Your task to perform on an android device: change text size in settings app Image 0: 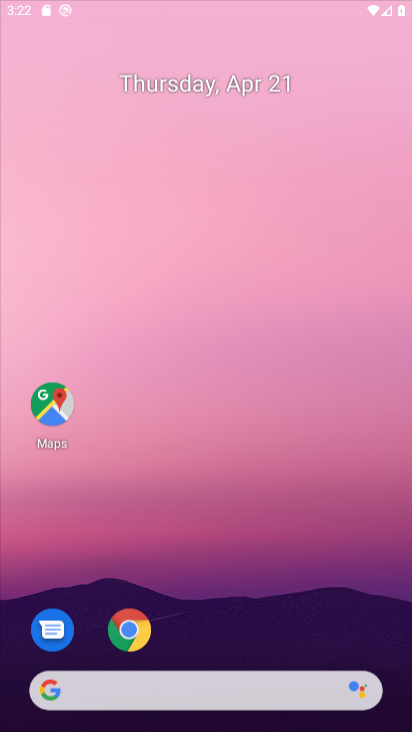
Step 0: click (405, 329)
Your task to perform on an android device: change text size in settings app Image 1: 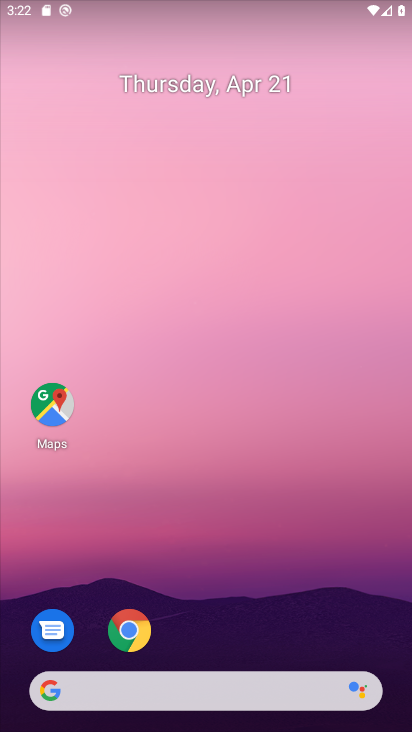
Step 1: drag from (219, 620) to (346, 182)
Your task to perform on an android device: change text size in settings app Image 2: 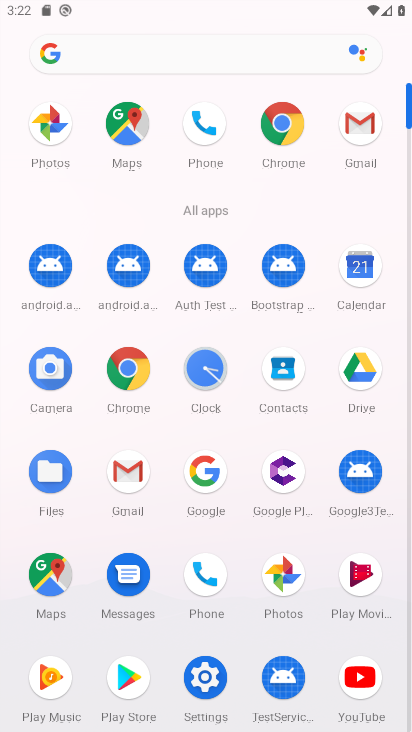
Step 2: click (187, 663)
Your task to perform on an android device: change text size in settings app Image 3: 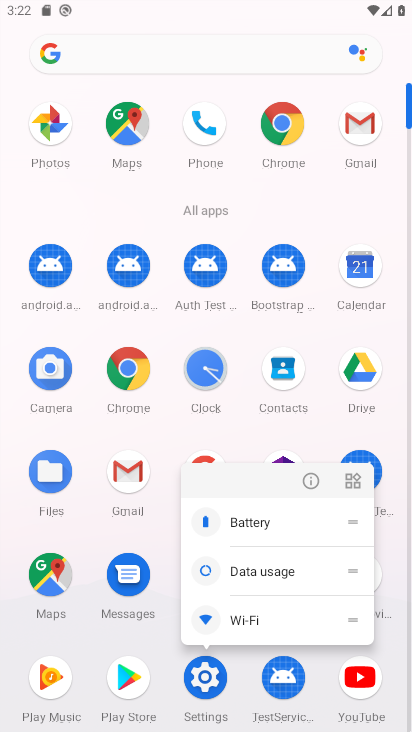
Step 3: click (317, 483)
Your task to perform on an android device: change text size in settings app Image 4: 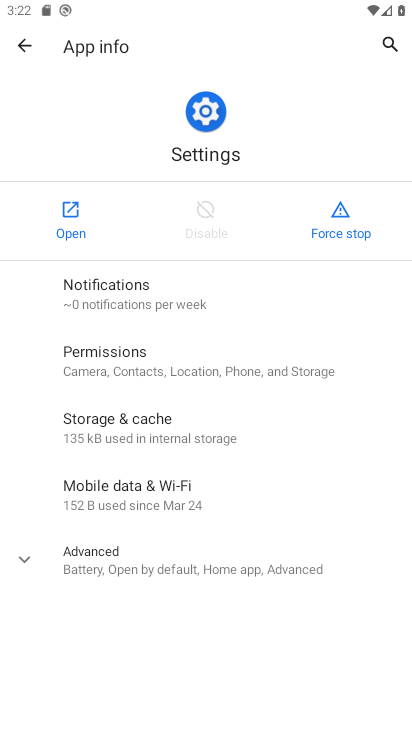
Step 4: click (52, 193)
Your task to perform on an android device: change text size in settings app Image 5: 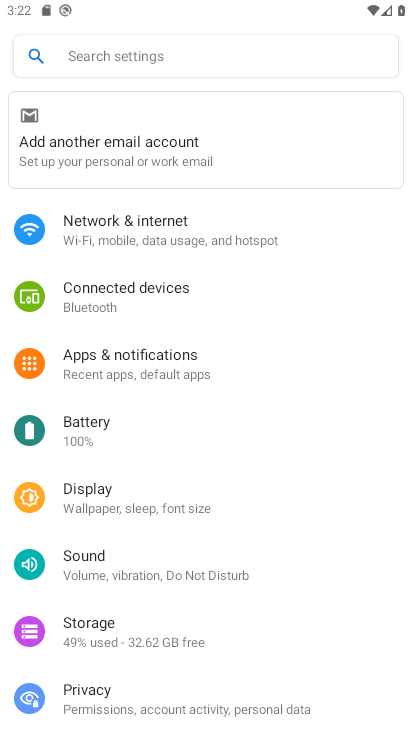
Step 5: drag from (144, 666) to (279, 99)
Your task to perform on an android device: change text size in settings app Image 6: 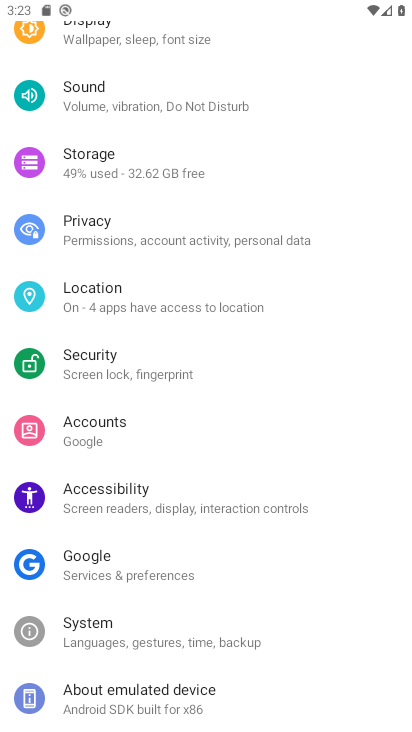
Step 6: click (126, 35)
Your task to perform on an android device: change text size in settings app Image 7: 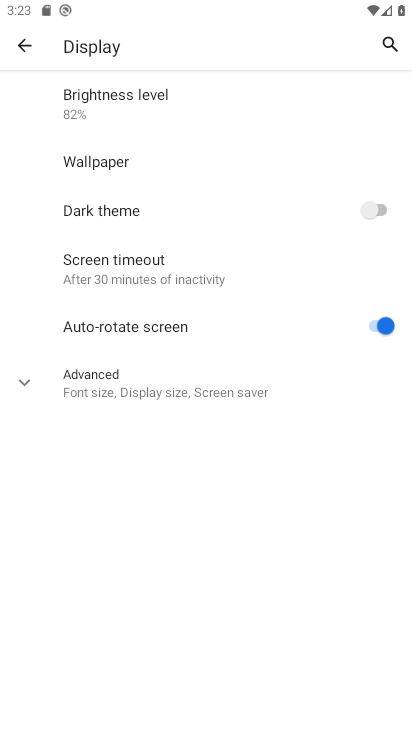
Step 7: click (127, 367)
Your task to perform on an android device: change text size in settings app Image 8: 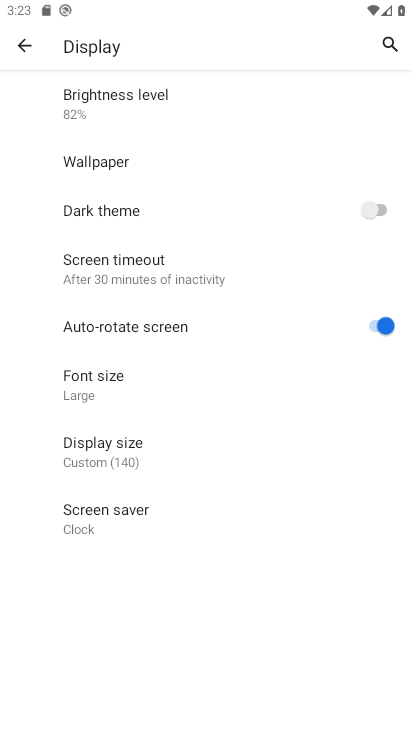
Step 8: click (120, 381)
Your task to perform on an android device: change text size in settings app Image 9: 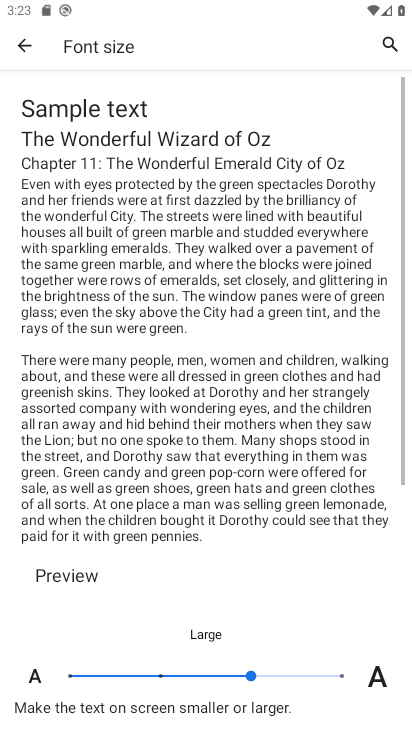
Step 9: drag from (257, 581) to (383, 60)
Your task to perform on an android device: change text size in settings app Image 10: 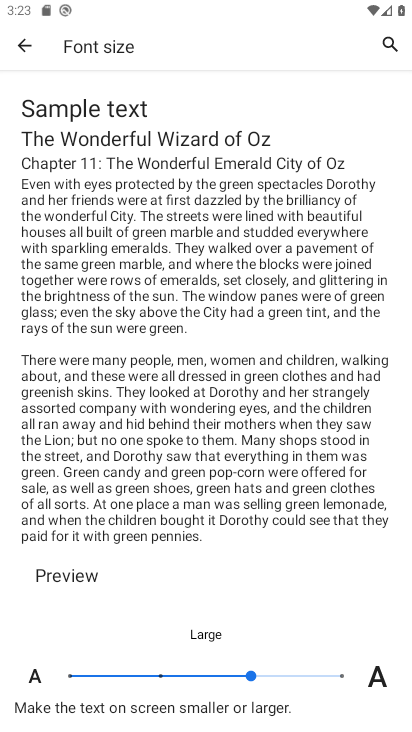
Step 10: drag from (290, 476) to (343, 155)
Your task to perform on an android device: change text size in settings app Image 11: 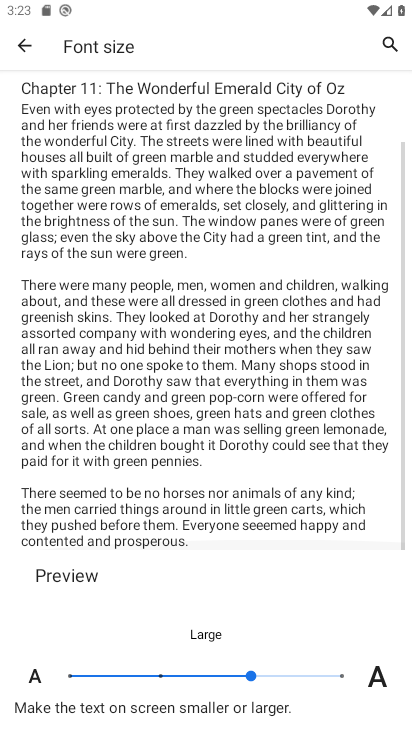
Step 11: drag from (256, 614) to (308, 320)
Your task to perform on an android device: change text size in settings app Image 12: 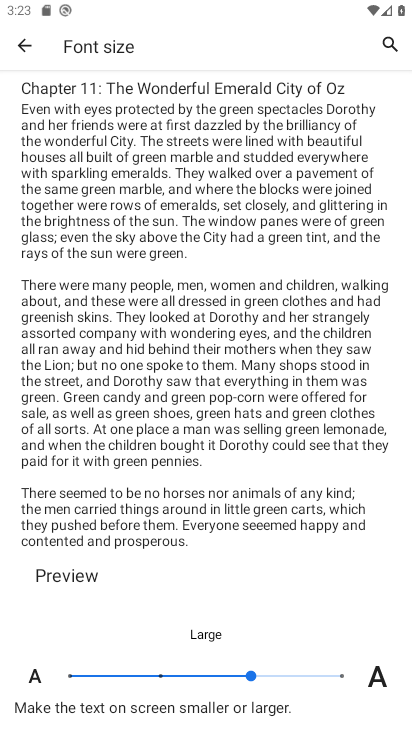
Step 12: click (118, 676)
Your task to perform on an android device: change text size in settings app Image 13: 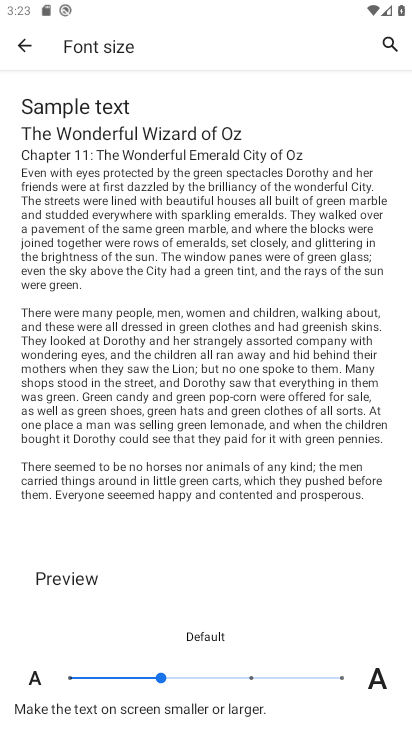
Step 13: task complete